Your task to perform on an android device: turn off wifi Image 0: 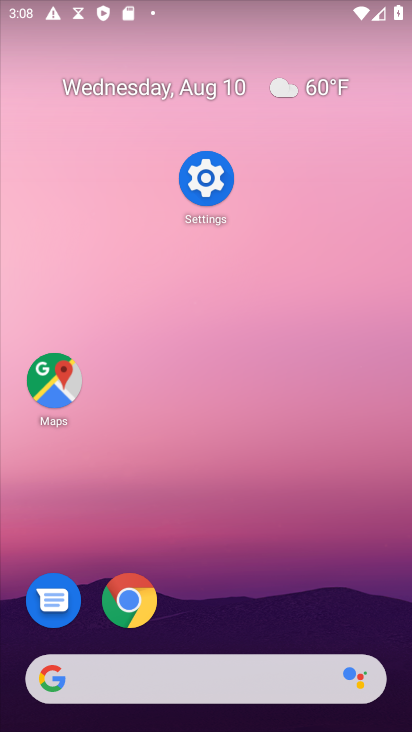
Step 0: press home button
Your task to perform on an android device: turn off wifi Image 1: 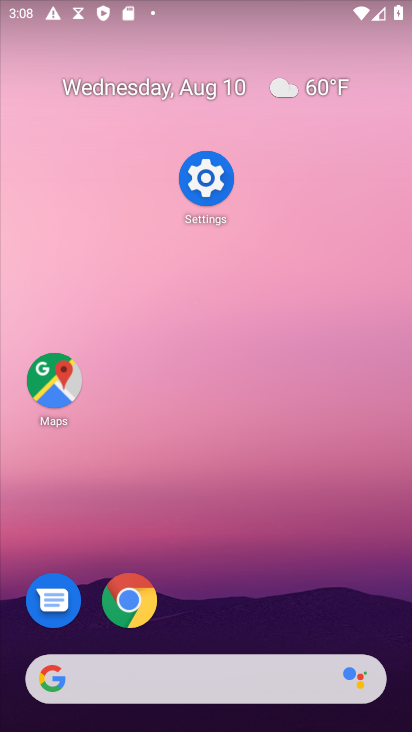
Step 1: press home button
Your task to perform on an android device: turn off wifi Image 2: 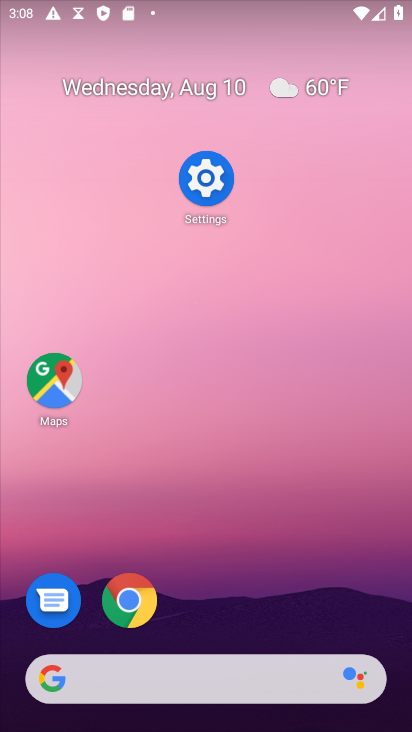
Step 2: drag from (183, 23) to (166, 485)
Your task to perform on an android device: turn off wifi Image 3: 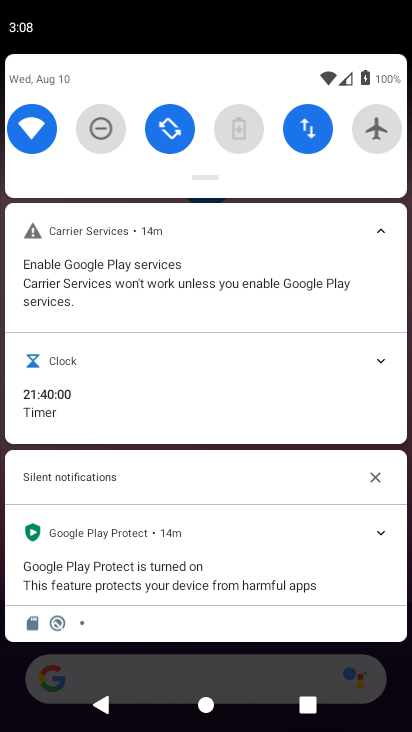
Step 3: drag from (203, 33) to (163, 450)
Your task to perform on an android device: turn off wifi Image 4: 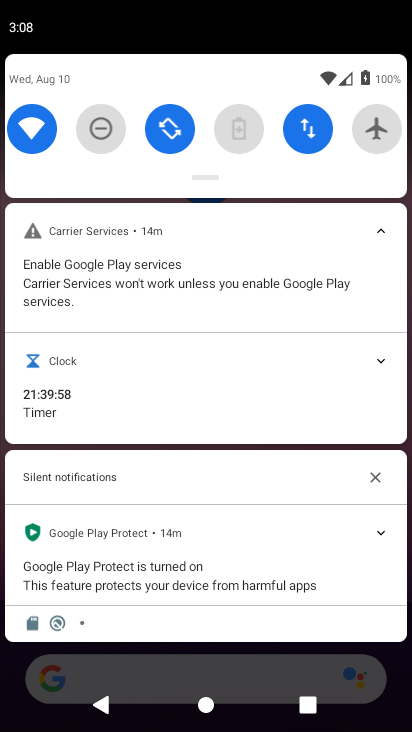
Step 4: click (36, 124)
Your task to perform on an android device: turn off wifi Image 5: 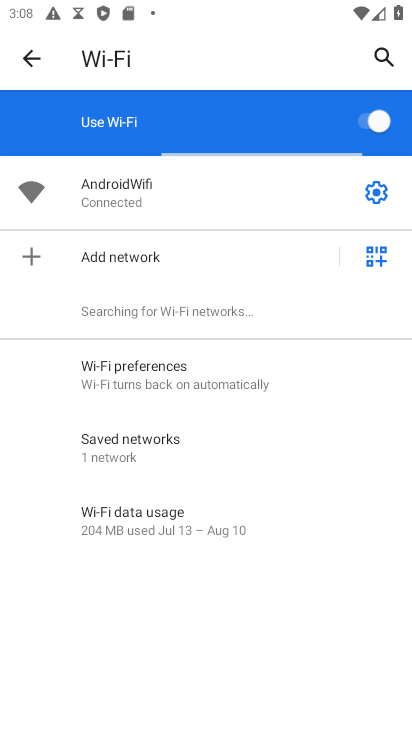
Step 5: task complete